Your task to perform on an android device: What's the weather going to be this weekend? Image 0: 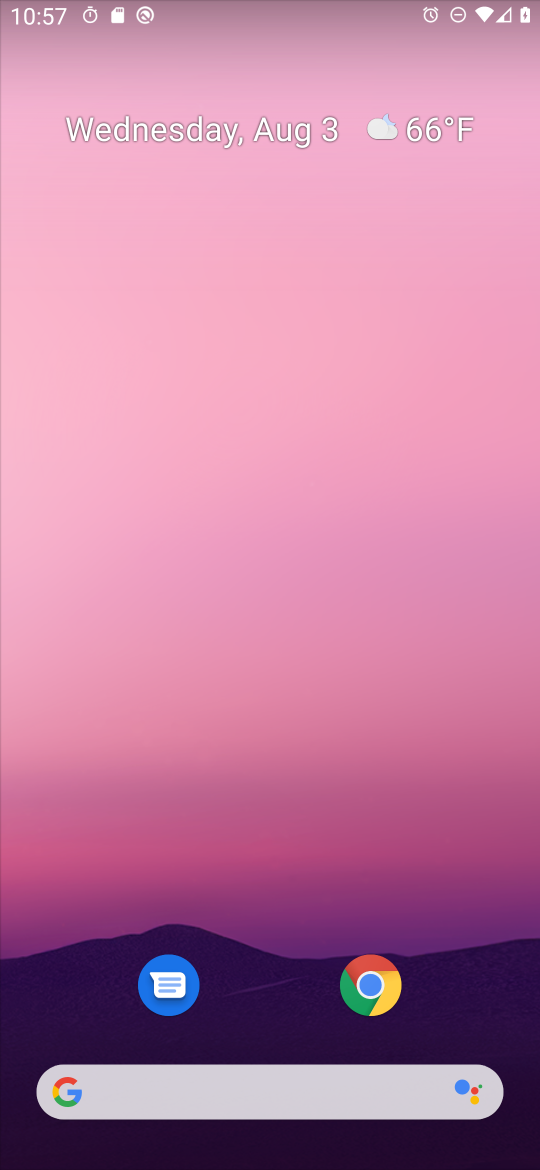
Step 0: drag from (282, 978) to (292, 310)
Your task to perform on an android device: What's the weather going to be this weekend? Image 1: 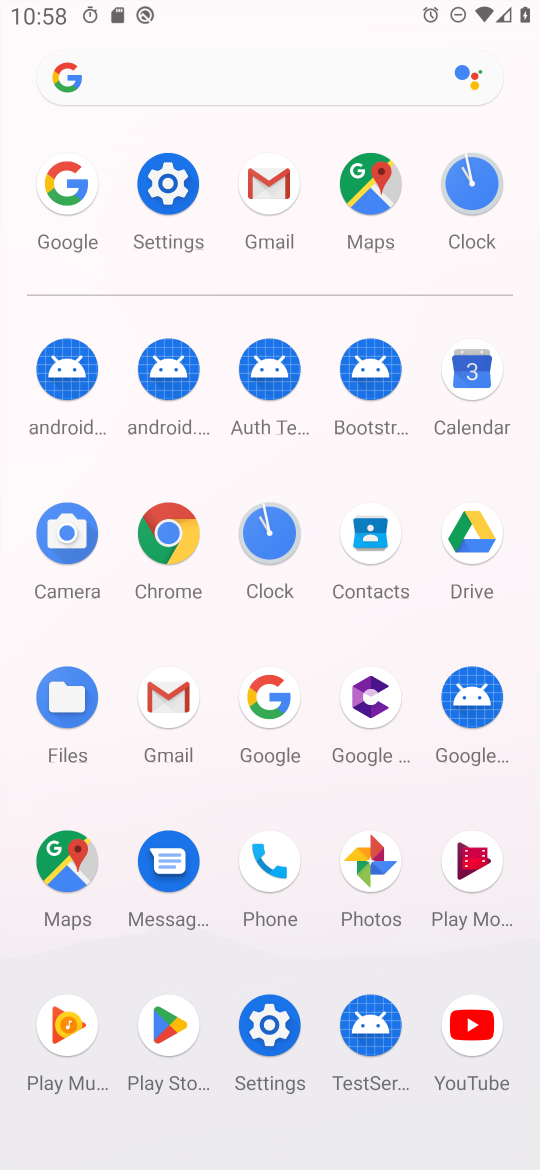
Step 1: click (86, 223)
Your task to perform on an android device: What's the weather going to be this weekend? Image 2: 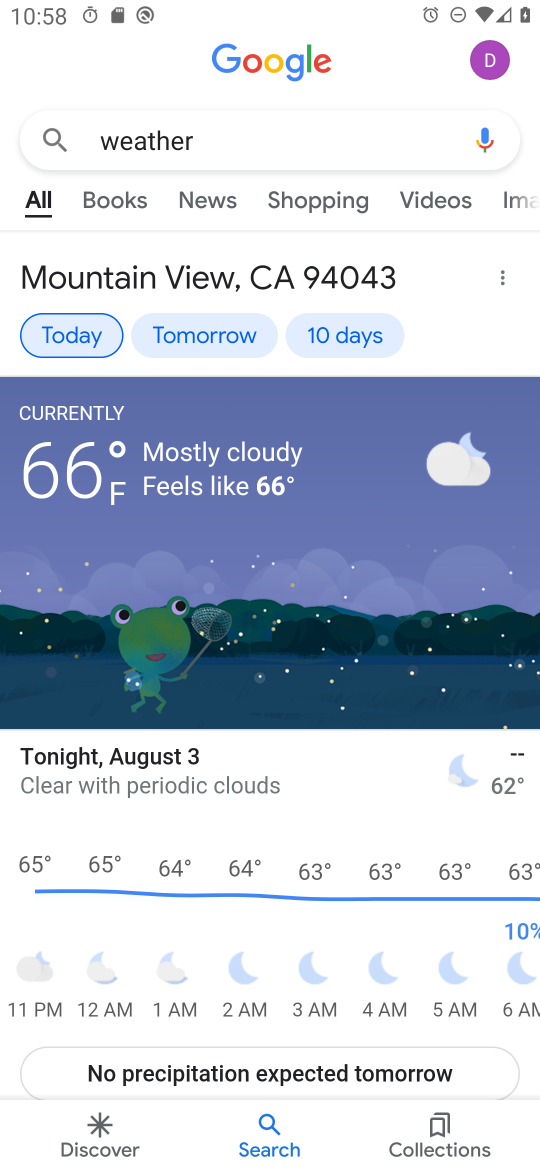
Step 2: click (339, 337)
Your task to perform on an android device: What's the weather going to be this weekend? Image 3: 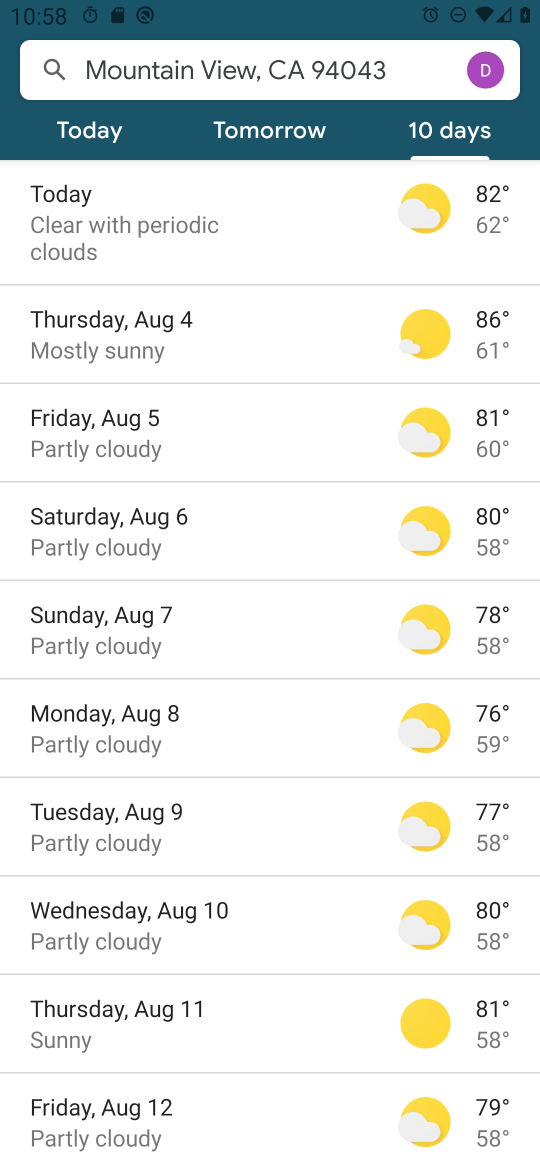
Step 3: task complete